Your task to perform on an android device: change alarm snooze length Image 0: 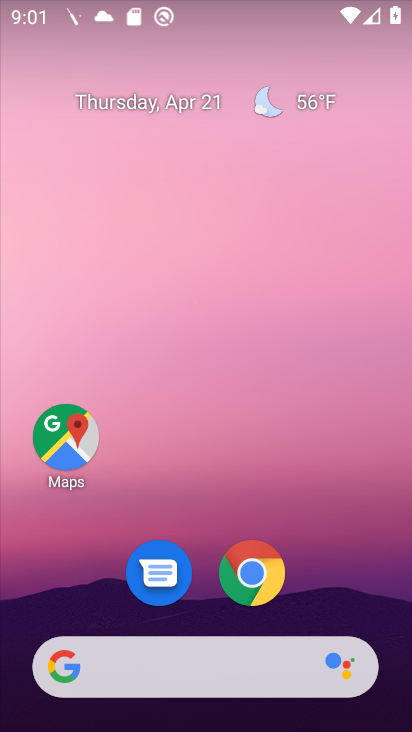
Step 0: drag from (222, 404) to (285, 5)
Your task to perform on an android device: change alarm snooze length Image 1: 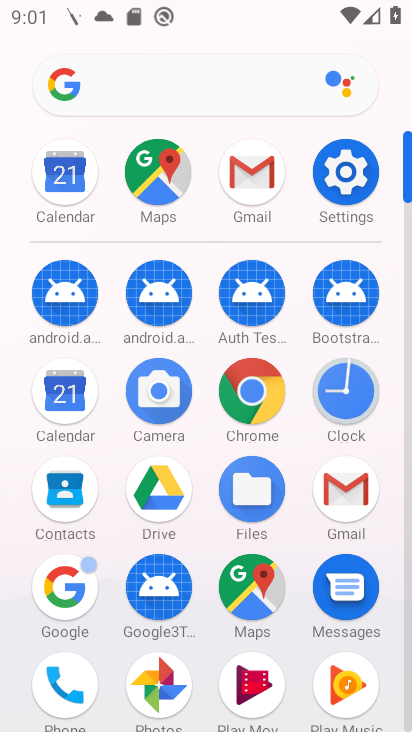
Step 1: click (359, 374)
Your task to perform on an android device: change alarm snooze length Image 2: 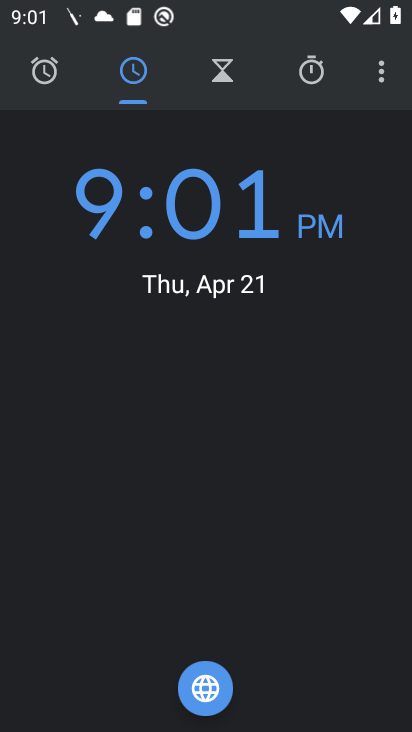
Step 2: click (384, 82)
Your task to perform on an android device: change alarm snooze length Image 3: 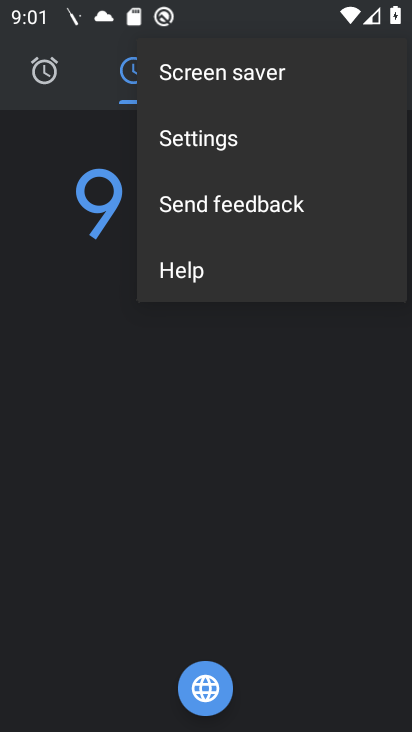
Step 3: click (303, 145)
Your task to perform on an android device: change alarm snooze length Image 4: 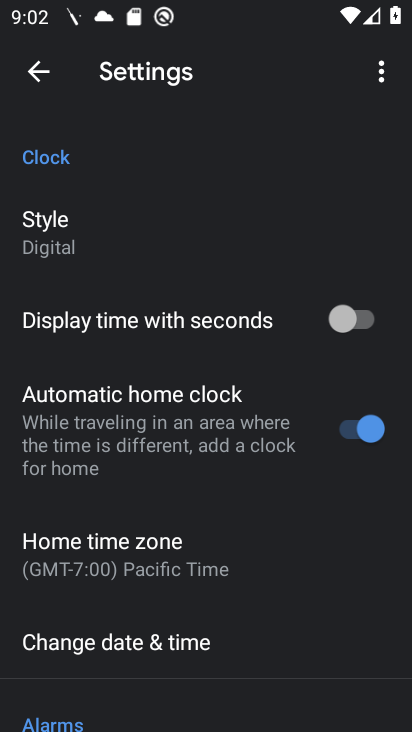
Step 4: drag from (265, 527) to (286, 291)
Your task to perform on an android device: change alarm snooze length Image 5: 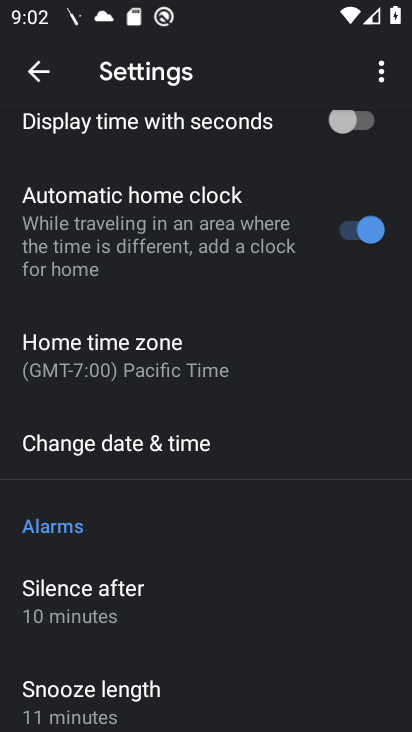
Step 5: click (110, 696)
Your task to perform on an android device: change alarm snooze length Image 6: 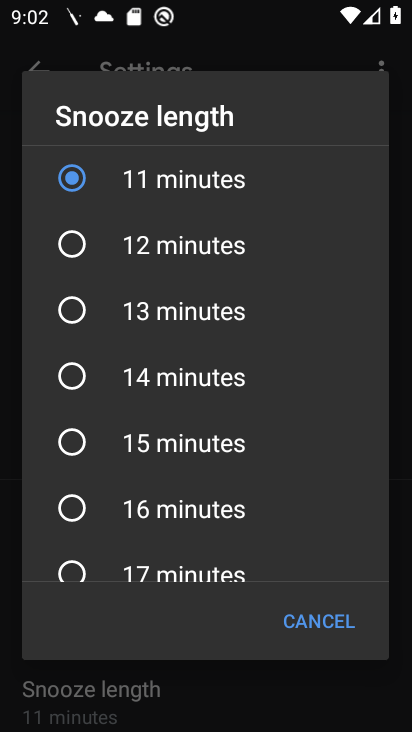
Step 6: click (67, 501)
Your task to perform on an android device: change alarm snooze length Image 7: 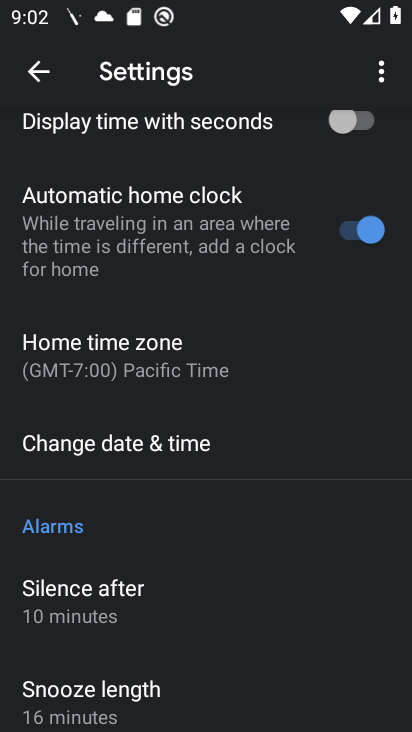
Step 7: task complete